Your task to perform on an android device: delete browsing data in the chrome app Image 0: 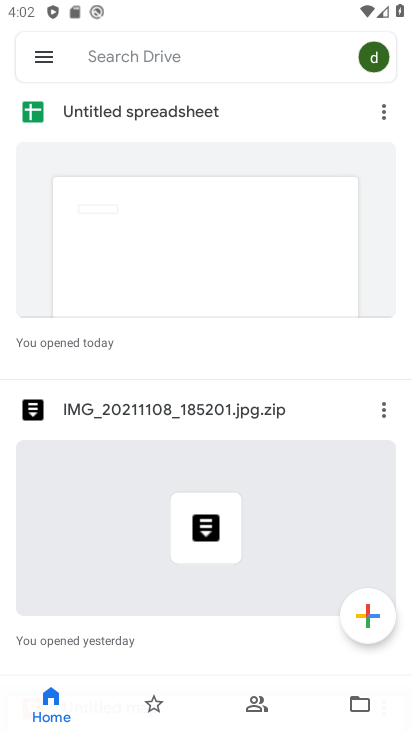
Step 0: press back button
Your task to perform on an android device: delete browsing data in the chrome app Image 1: 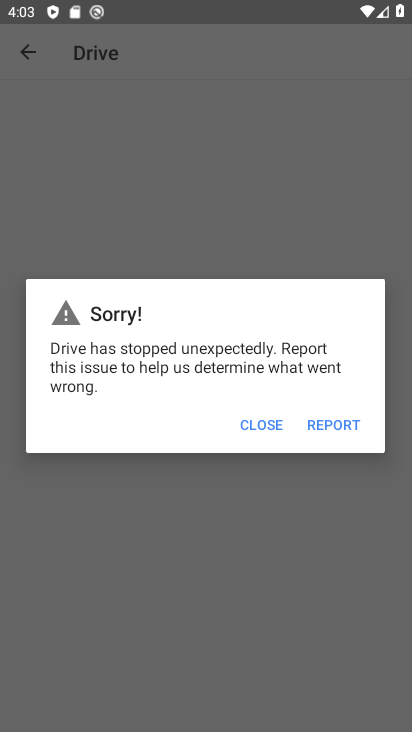
Step 1: press back button
Your task to perform on an android device: delete browsing data in the chrome app Image 2: 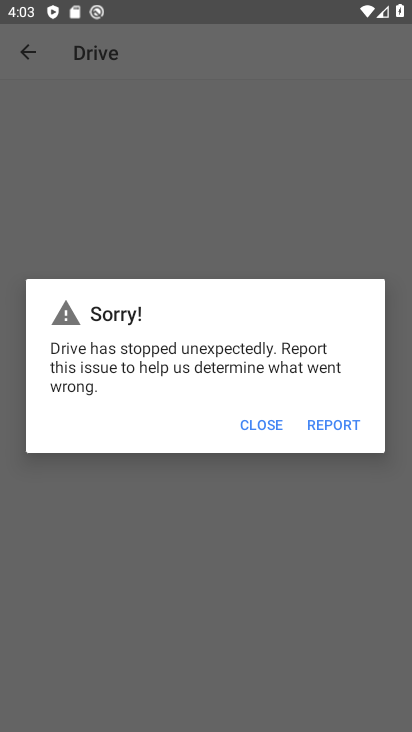
Step 2: press home button
Your task to perform on an android device: delete browsing data in the chrome app Image 3: 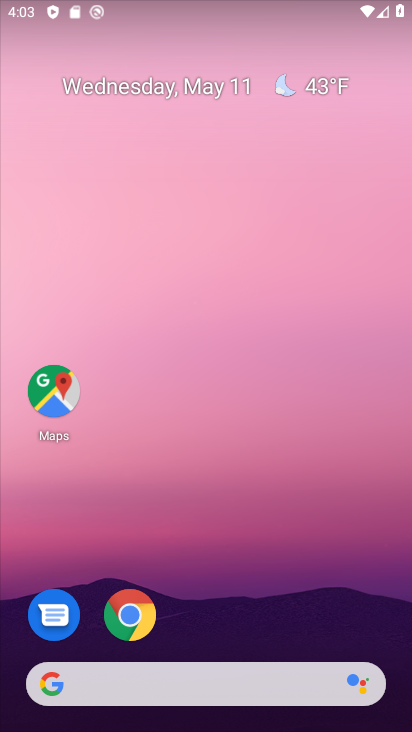
Step 3: click (128, 617)
Your task to perform on an android device: delete browsing data in the chrome app Image 4: 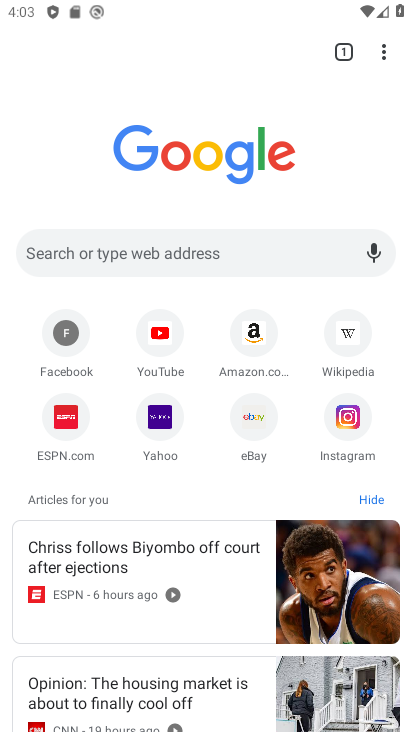
Step 4: drag from (383, 51) to (215, 437)
Your task to perform on an android device: delete browsing data in the chrome app Image 5: 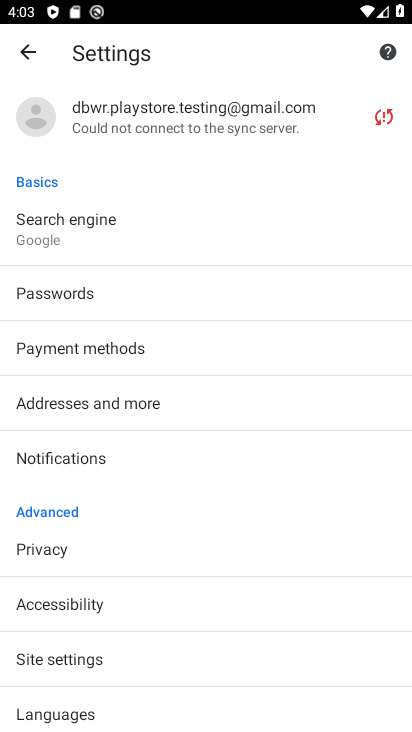
Step 5: click (32, 51)
Your task to perform on an android device: delete browsing data in the chrome app Image 6: 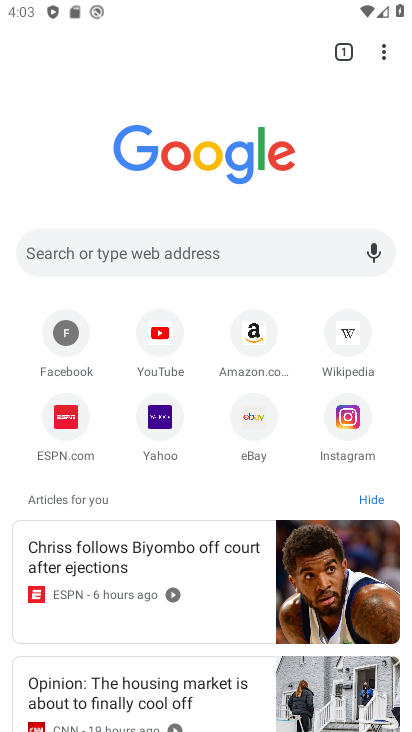
Step 6: task complete